Your task to perform on an android device: allow cookies in the chrome app Image 0: 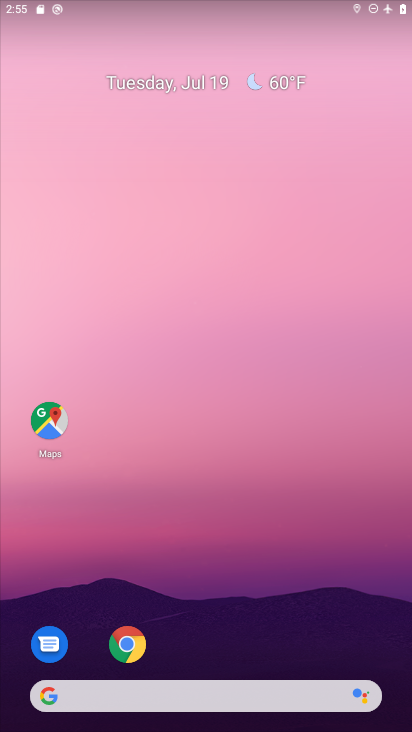
Step 0: drag from (236, 666) to (223, 113)
Your task to perform on an android device: allow cookies in the chrome app Image 1: 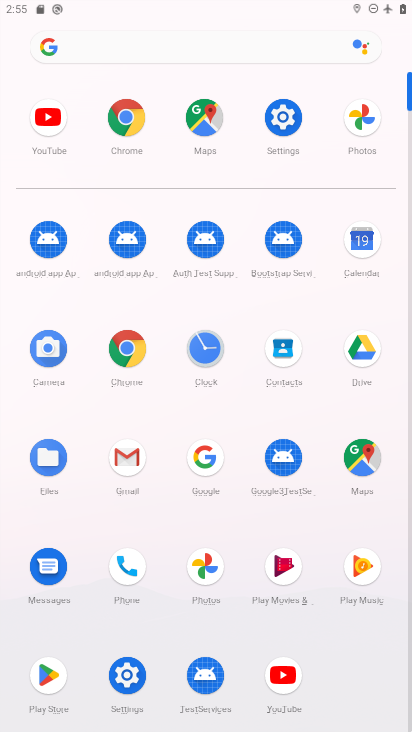
Step 1: click (117, 336)
Your task to perform on an android device: allow cookies in the chrome app Image 2: 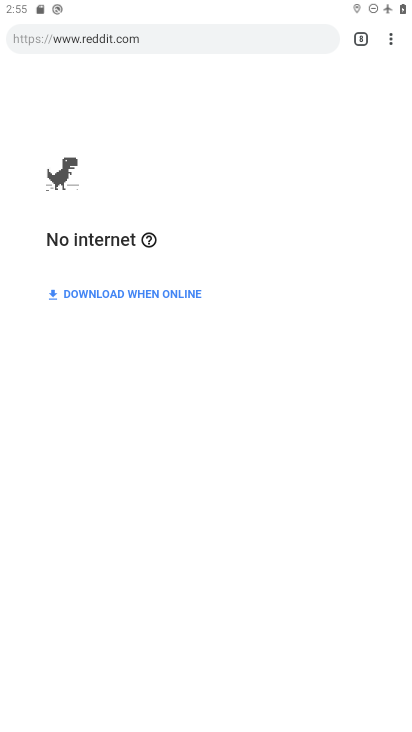
Step 2: drag from (395, 36) to (228, 429)
Your task to perform on an android device: allow cookies in the chrome app Image 3: 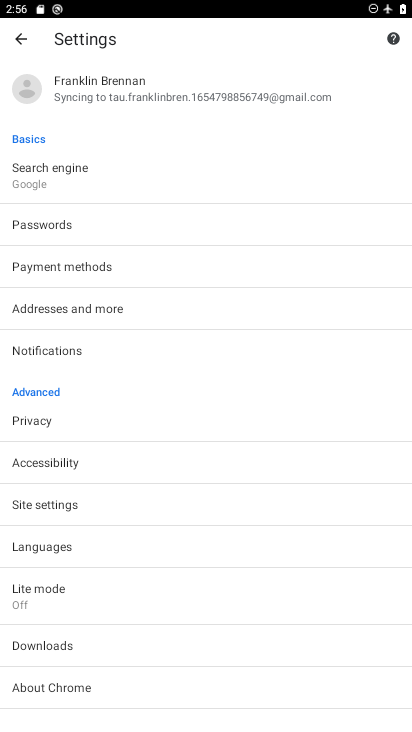
Step 3: click (73, 496)
Your task to perform on an android device: allow cookies in the chrome app Image 4: 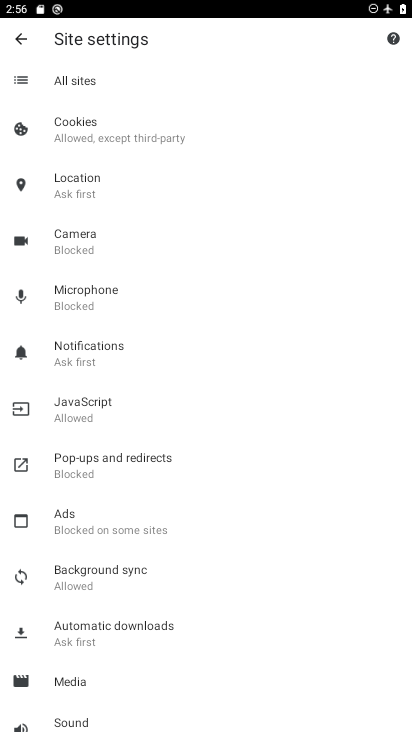
Step 4: click (156, 613)
Your task to perform on an android device: allow cookies in the chrome app Image 5: 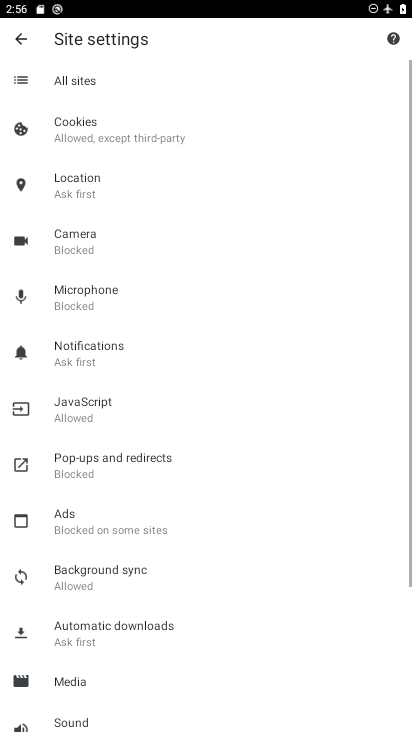
Step 5: click (77, 119)
Your task to perform on an android device: allow cookies in the chrome app Image 6: 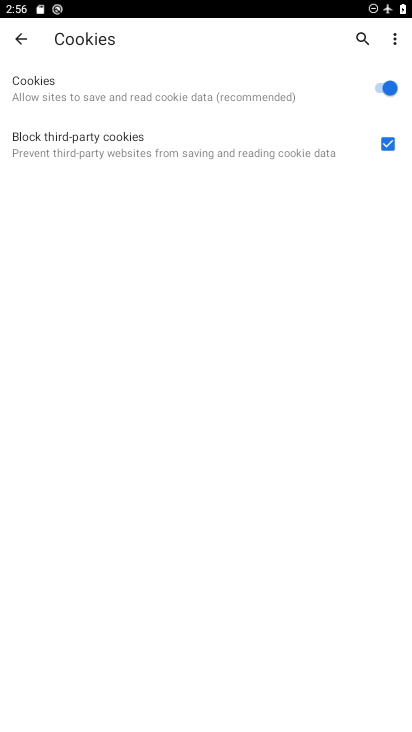
Step 6: task complete